Your task to perform on an android device: set default search engine in the chrome app Image 0: 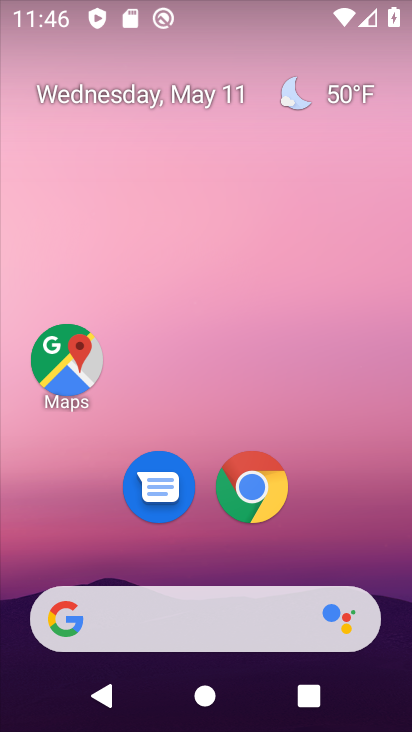
Step 0: click (250, 489)
Your task to perform on an android device: set default search engine in the chrome app Image 1: 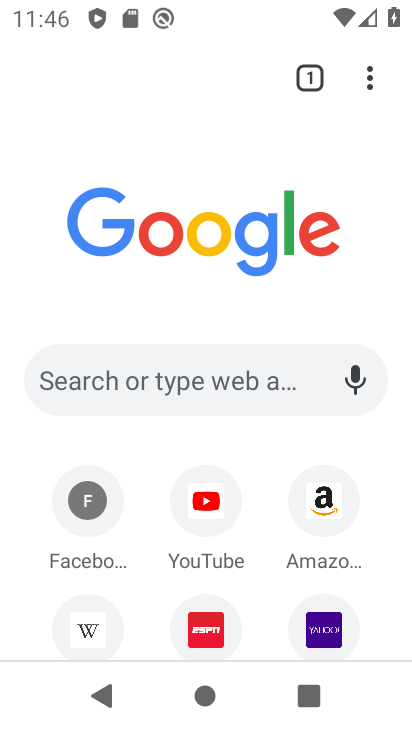
Step 1: click (362, 76)
Your task to perform on an android device: set default search engine in the chrome app Image 2: 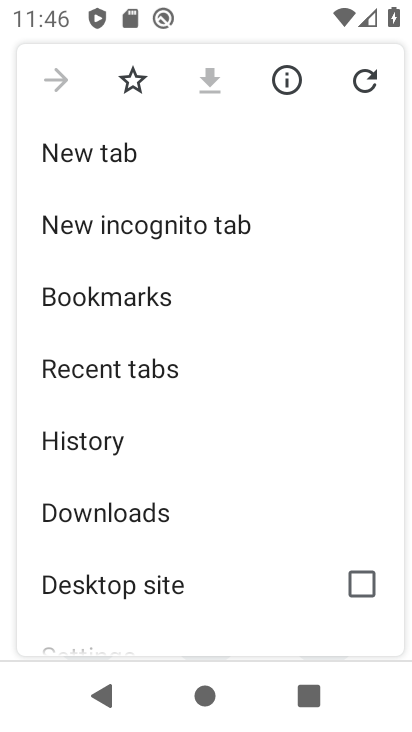
Step 2: drag from (68, 504) to (211, 178)
Your task to perform on an android device: set default search engine in the chrome app Image 3: 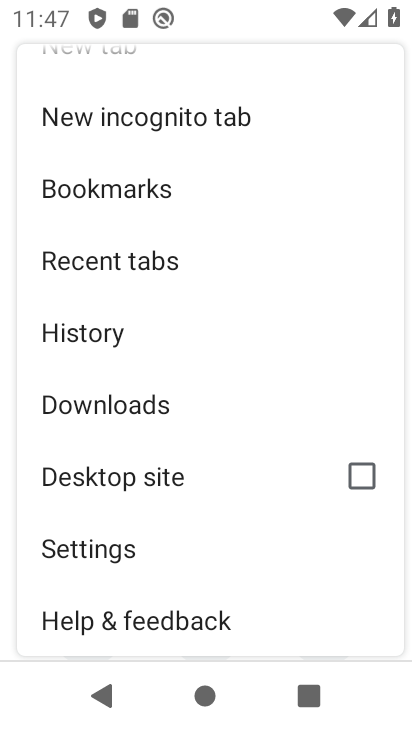
Step 3: click (100, 543)
Your task to perform on an android device: set default search engine in the chrome app Image 4: 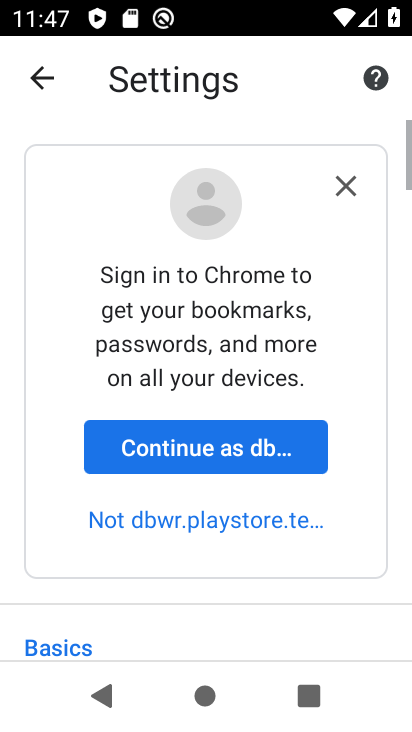
Step 4: drag from (100, 543) to (87, 240)
Your task to perform on an android device: set default search engine in the chrome app Image 5: 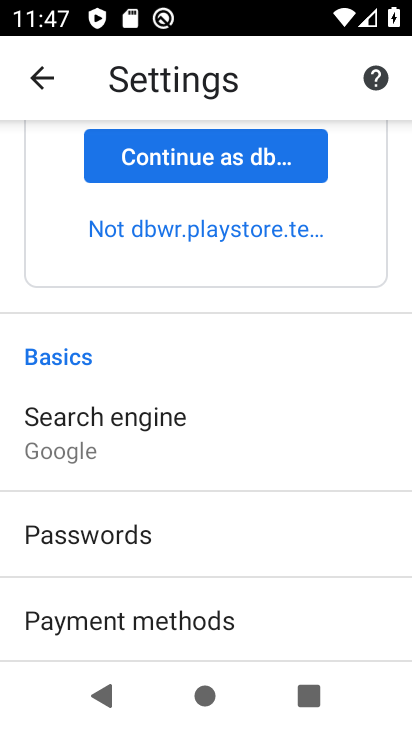
Step 5: click (81, 421)
Your task to perform on an android device: set default search engine in the chrome app Image 6: 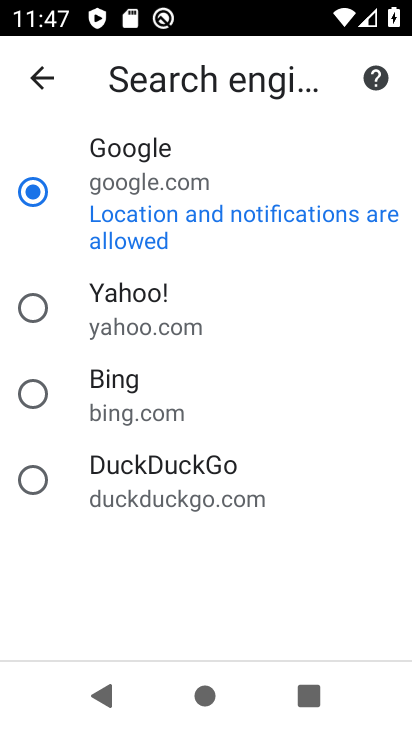
Step 6: task complete